Your task to perform on an android device: Open Amazon Image 0: 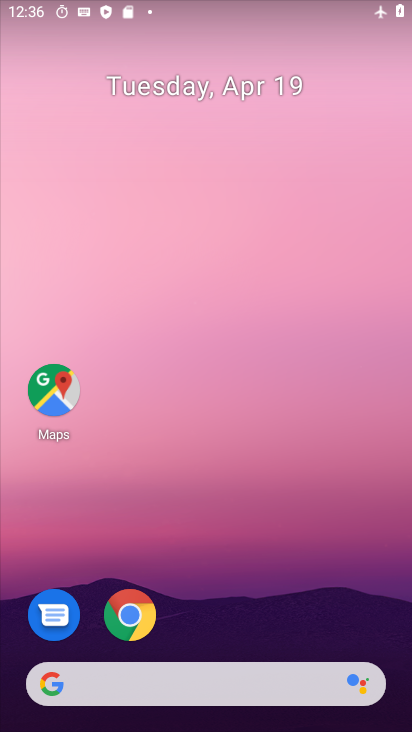
Step 0: drag from (383, 621) to (383, 126)
Your task to perform on an android device: Open Amazon Image 1: 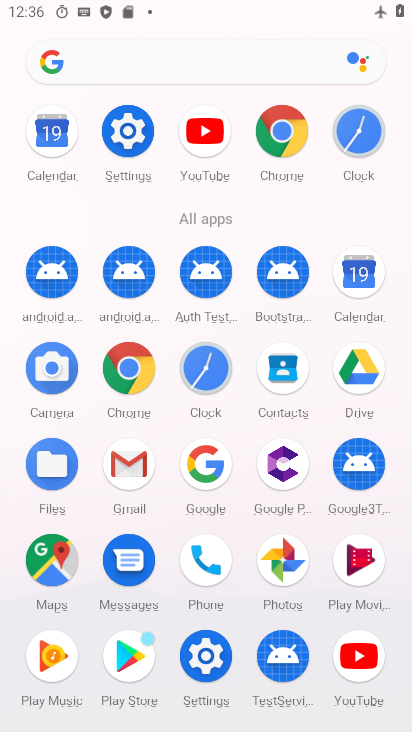
Step 1: click (140, 380)
Your task to perform on an android device: Open Amazon Image 2: 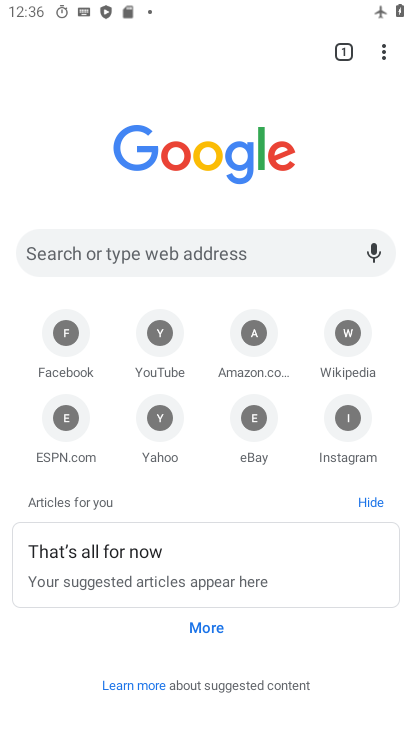
Step 2: click (255, 348)
Your task to perform on an android device: Open Amazon Image 3: 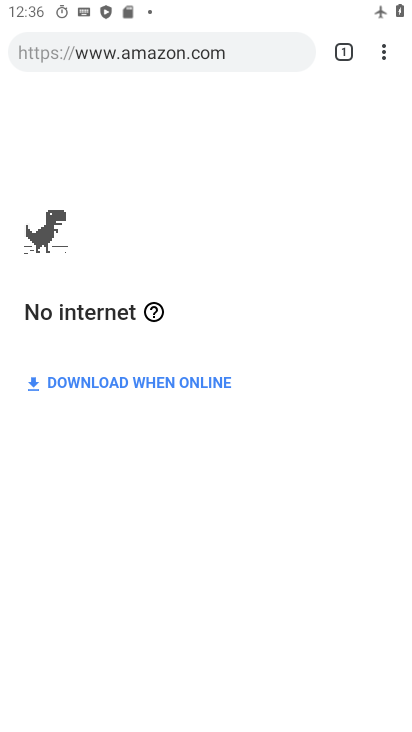
Step 3: task complete